Your task to perform on an android device: Open the map Image 0: 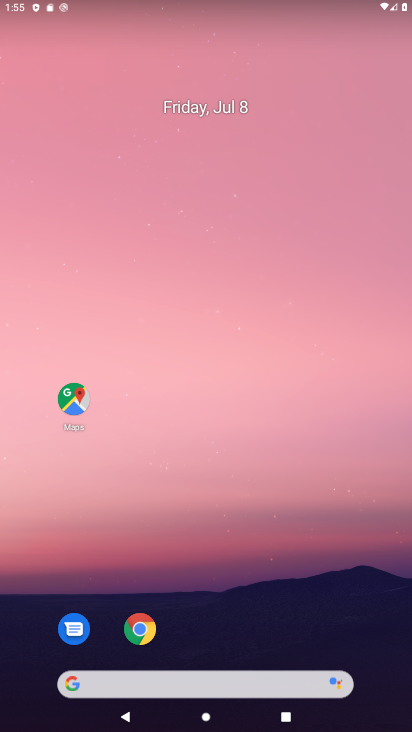
Step 0: click (79, 407)
Your task to perform on an android device: Open the map Image 1: 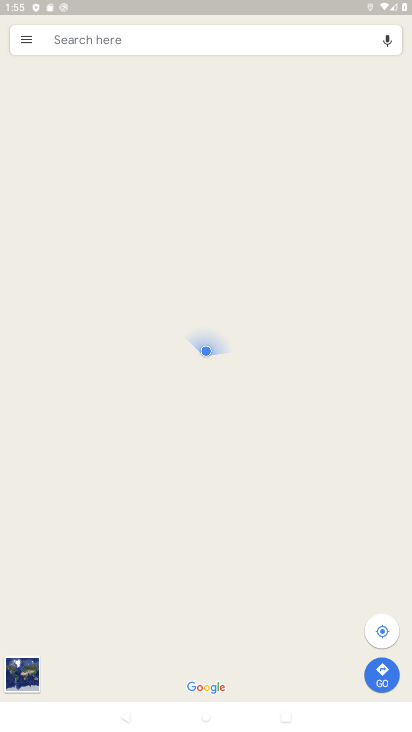
Step 1: task complete